Your task to perform on an android device: show emergency info Image 0: 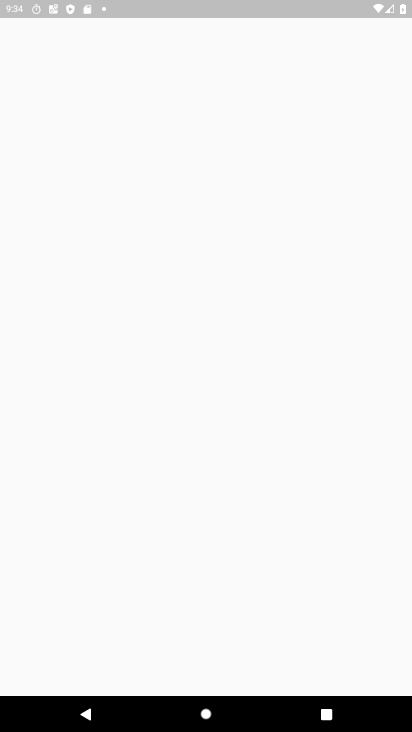
Step 0: press home button
Your task to perform on an android device: show emergency info Image 1: 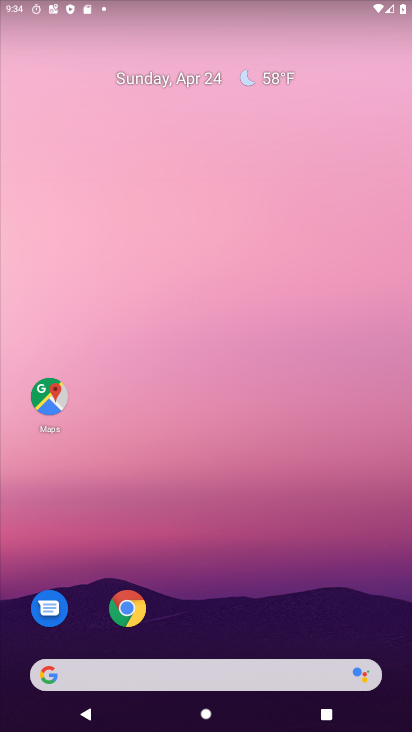
Step 1: drag from (342, 610) to (318, 107)
Your task to perform on an android device: show emergency info Image 2: 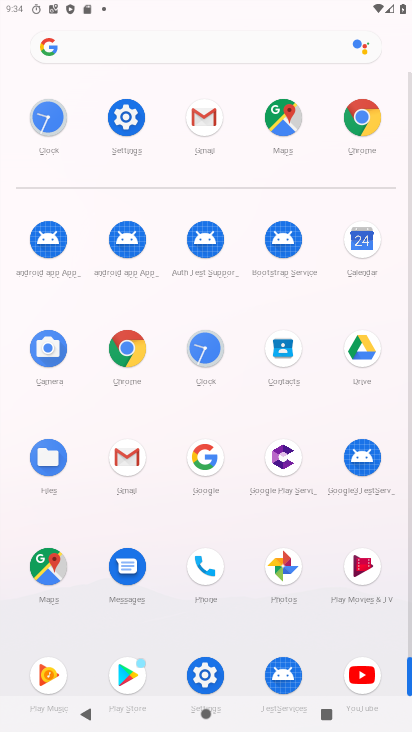
Step 2: click (125, 114)
Your task to perform on an android device: show emergency info Image 3: 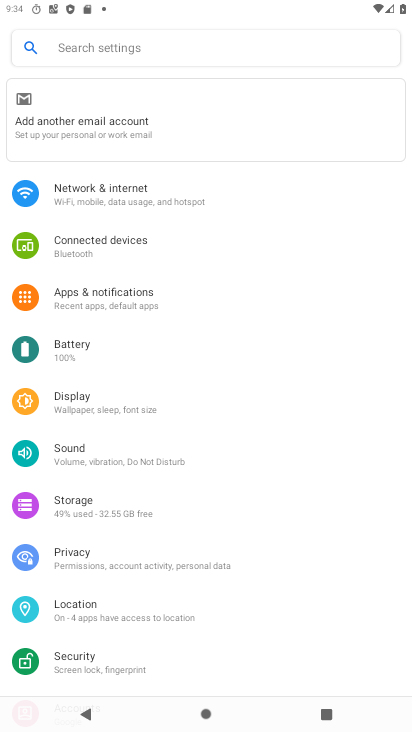
Step 3: drag from (350, 521) to (342, 345)
Your task to perform on an android device: show emergency info Image 4: 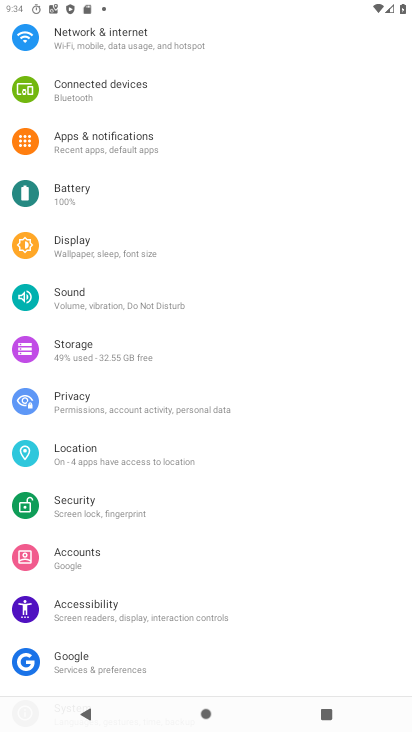
Step 4: drag from (322, 604) to (331, 397)
Your task to perform on an android device: show emergency info Image 5: 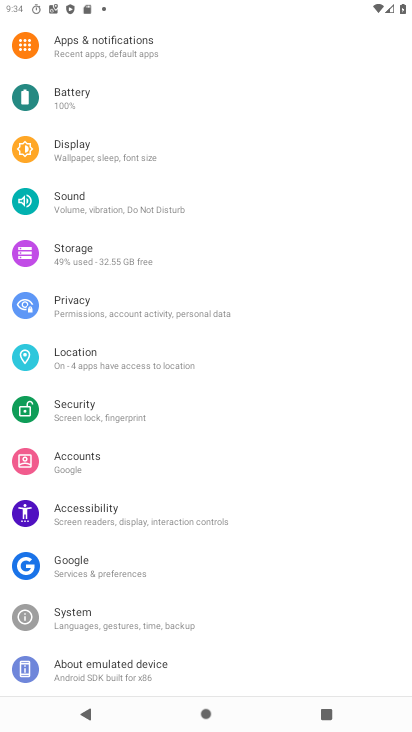
Step 5: click (139, 670)
Your task to perform on an android device: show emergency info Image 6: 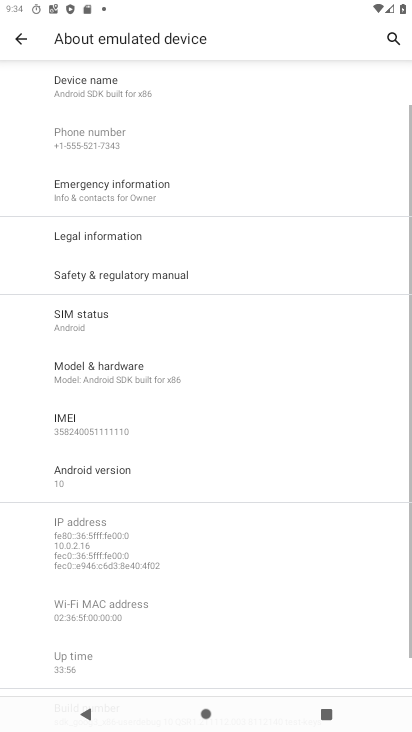
Step 6: click (180, 194)
Your task to perform on an android device: show emergency info Image 7: 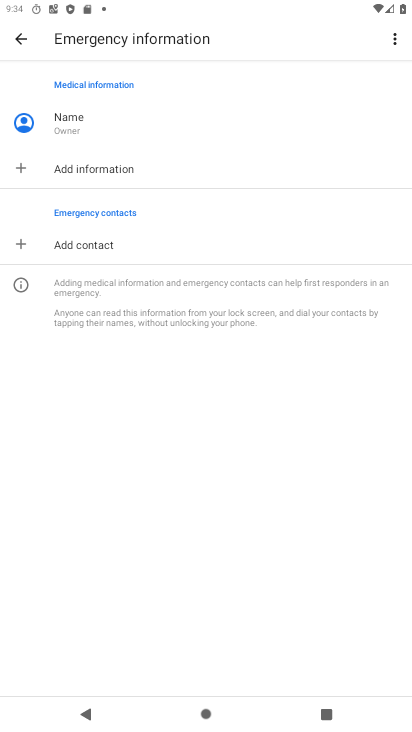
Step 7: task complete